Your task to perform on an android device: When is my next meeting? Image 0: 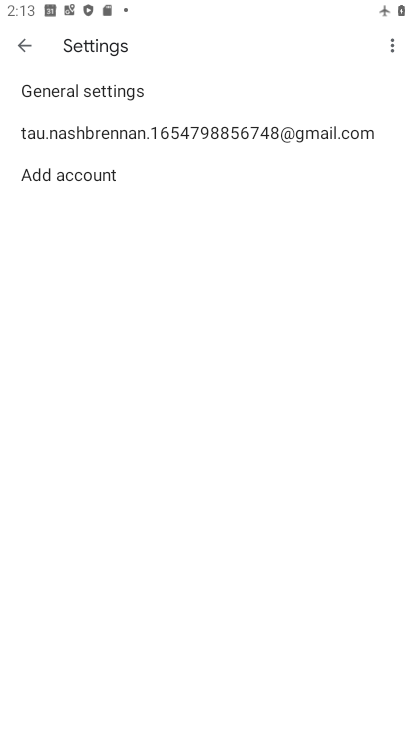
Step 0: press home button
Your task to perform on an android device: When is my next meeting? Image 1: 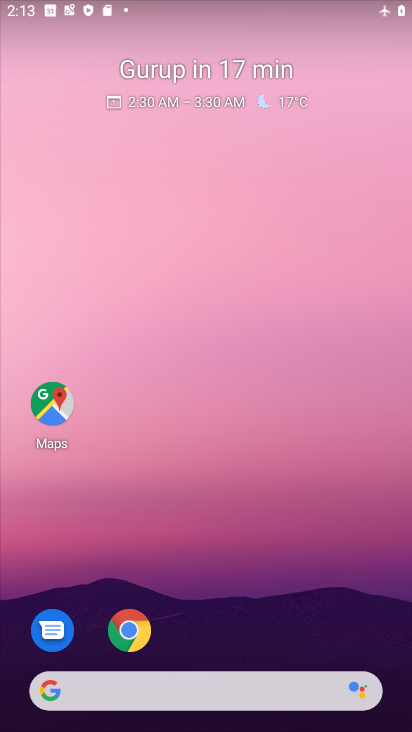
Step 1: drag from (210, 623) to (206, 0)
Your task to perform on an android device: When is my next meeting? Image 2: 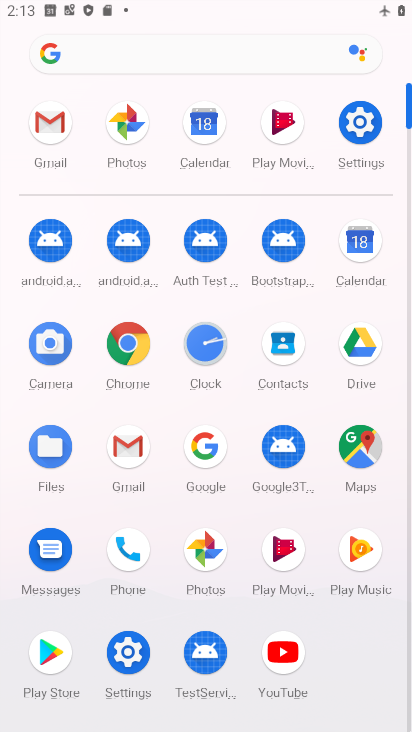
Step 2: click (204, 118)
Your task to perform on an android device: When is my next meeting? Image 3: 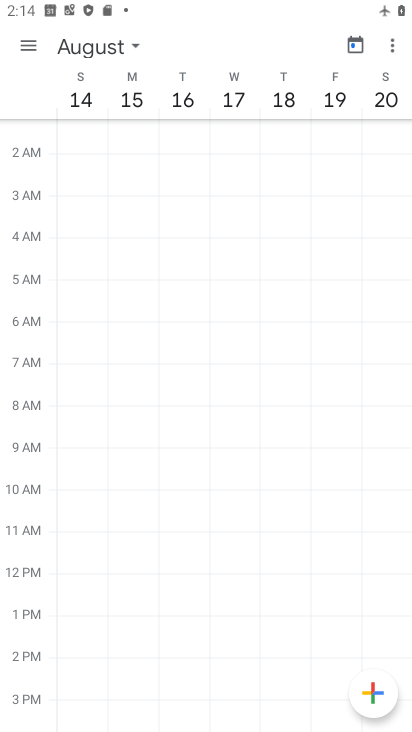
Step 3: task complete